Your task to perform on an android device: allow cookies in the chrome app Image 0: 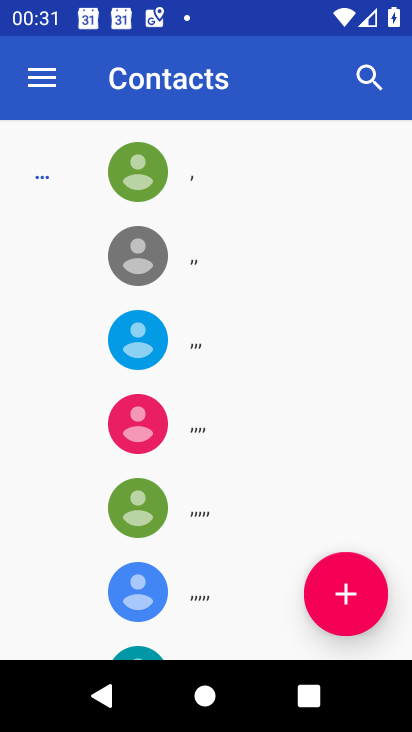
Step 0: press home button
Your task to perform on an android device: allow cookies in the chrome app Image 1: 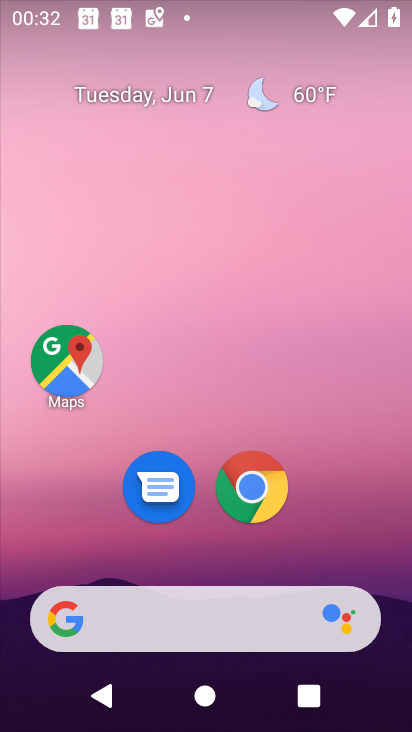
Step 1: click (267, 492)
Your task to perform on an android device: allow cookies in the chrome app Image 2: 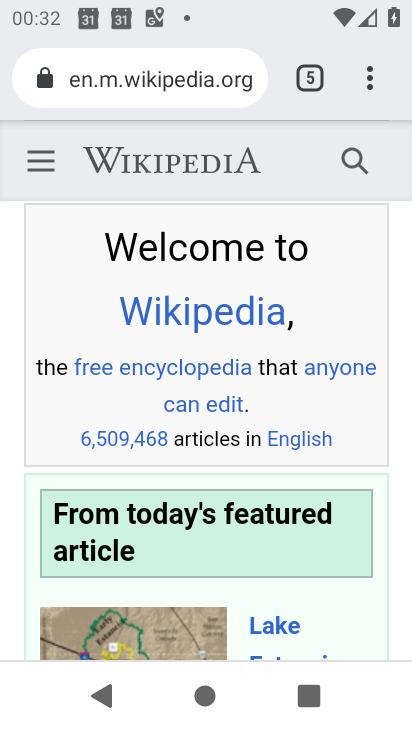
Step 2: click (370, 93)
Your task to perform on an android device: allow cookies in the chrome app Image 3: 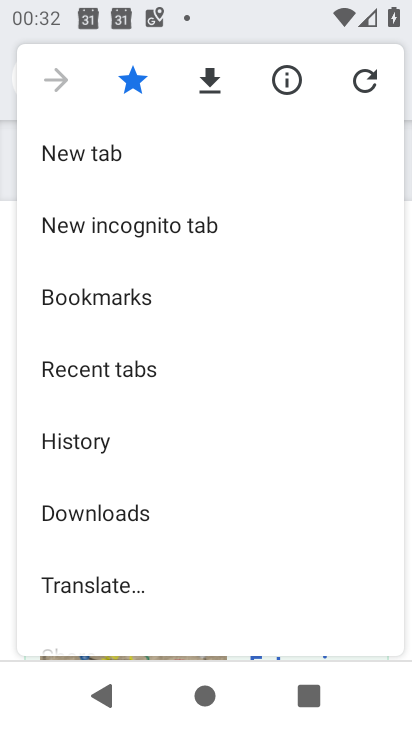
Step 3: drag from (224, 580) to (146, 92)
Your task to perform on an android device: allow cookies in the chrome app Image 4: 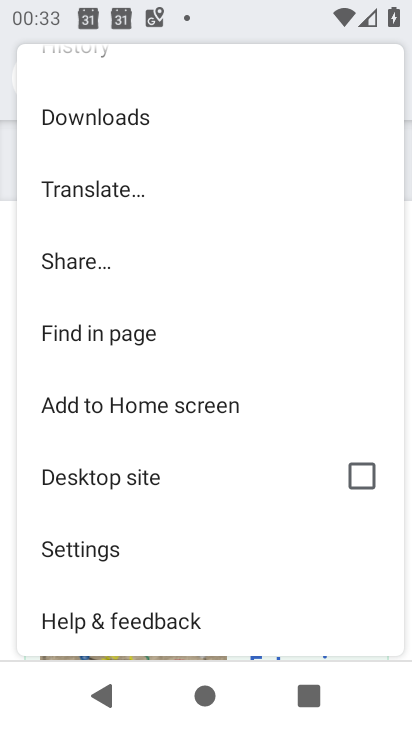
Step 4: click (173, 548)
Your task to perform on an android device: allow cookies in the chrome app Image 5: 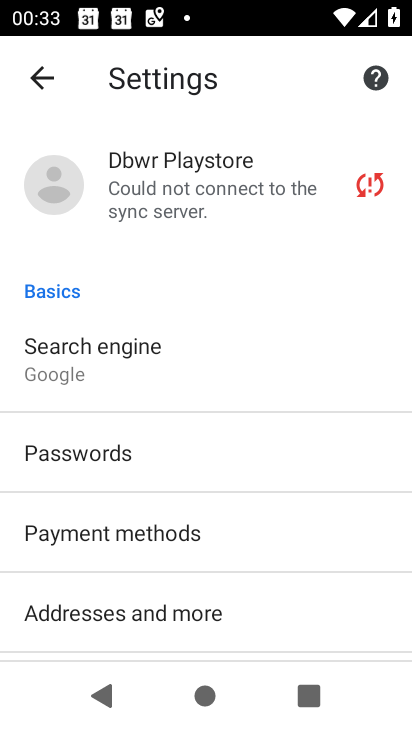
Step 5: drag from (223, 588) to (154, 105)
Your task to perform on an android device: allow cookies in the chrome app Image 6: 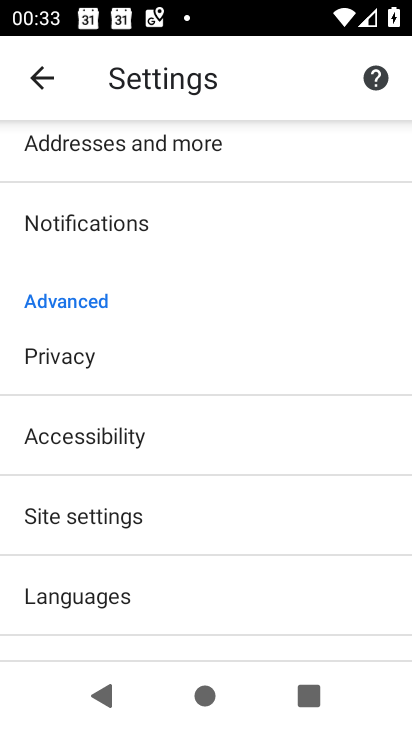
Step 6: click (164, 533)
Your task to perform on an android device: allow cookies in the chrome app Image 7: 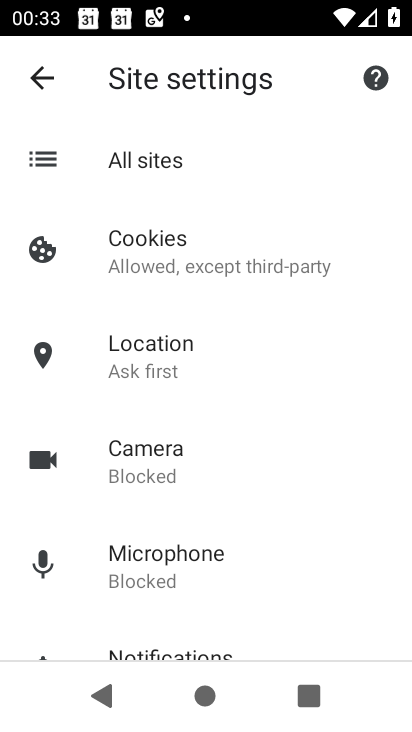
Step 7: click (214, 267)
Your task to perform on an android device: allow cookies in the chrome app Image 8: 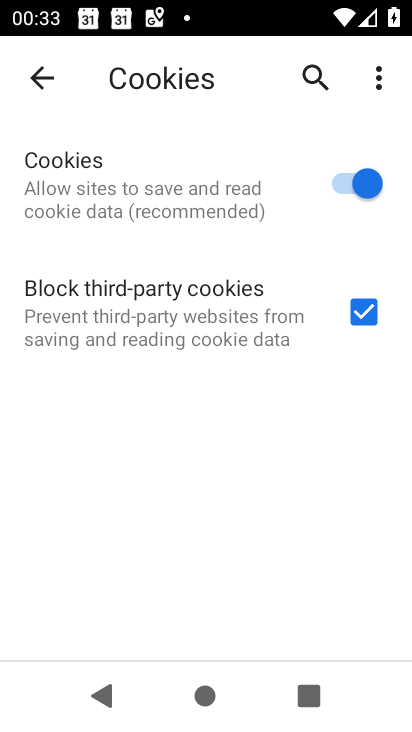
Step 8: task complete